Your task to perform on an android device: Open CNN.com Image 0: 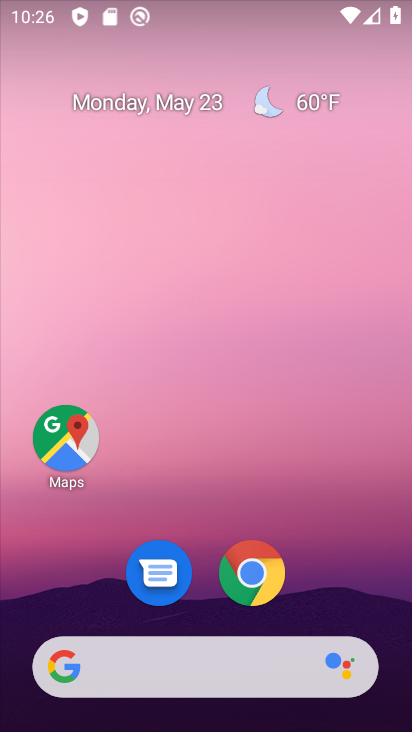
Step 0: drag from (336, 577) to (260, 52)
Your task to perform on an android device: Open CNN.com Image 1: 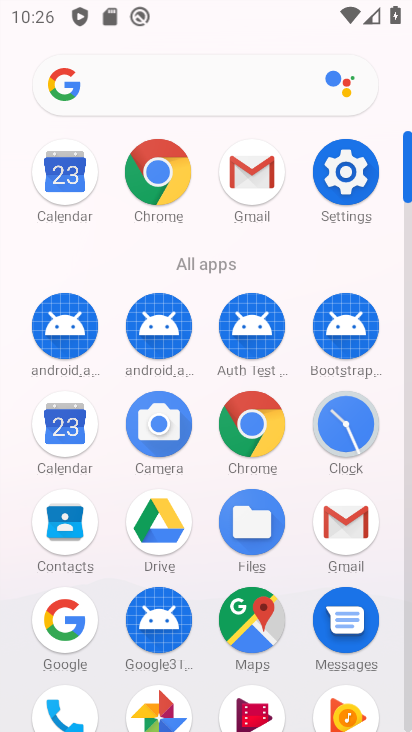
Step 1: drag from (21, 530) to (3, 181)
Your task to perform on an android device: Open CNN.com Image 2: 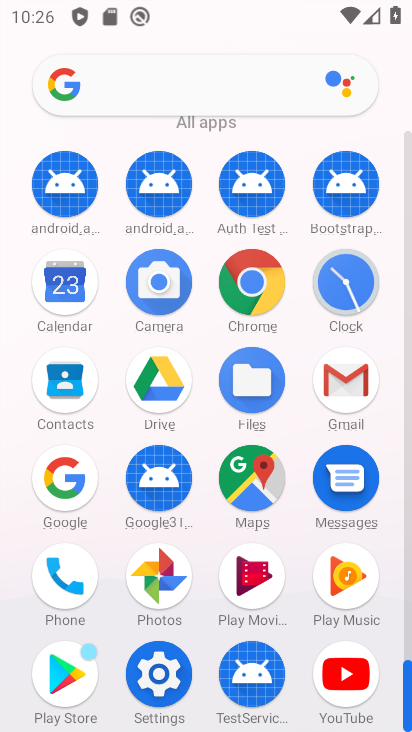
Step 2: click (243, 270)
Your task to perform on an android device: Open CNN.com Image 3: 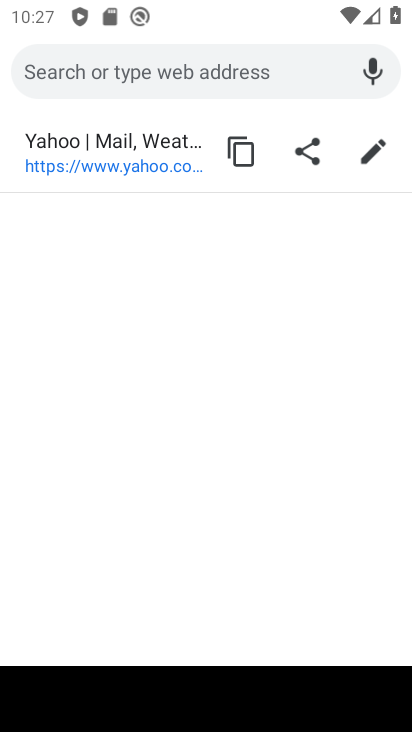
Step 3: type " CNN.com"
Your task to perform on an android device: Open CNN.com Image 4: 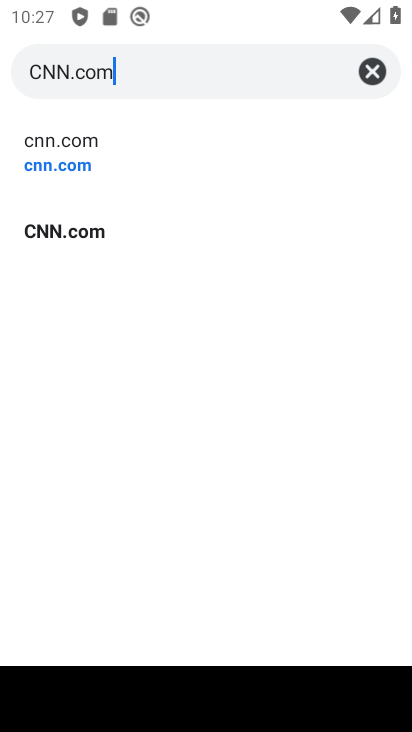
Step 4: type ""
Your task to perform on an android device: Open CNN.com Image 5: 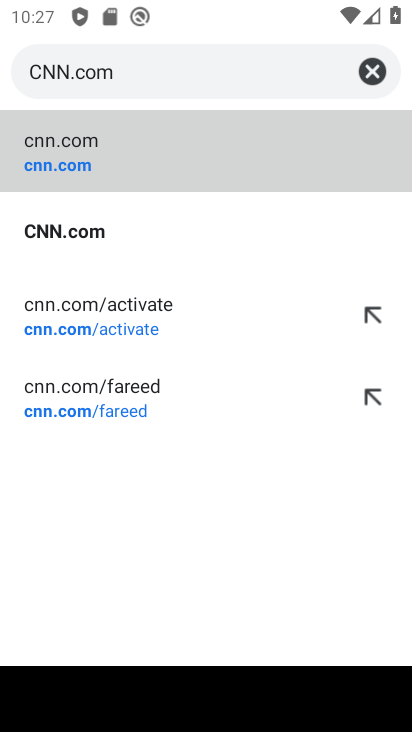
Step 5: click (105, 150)
Your task to perform on an android device: Open CNN.com Image 6: 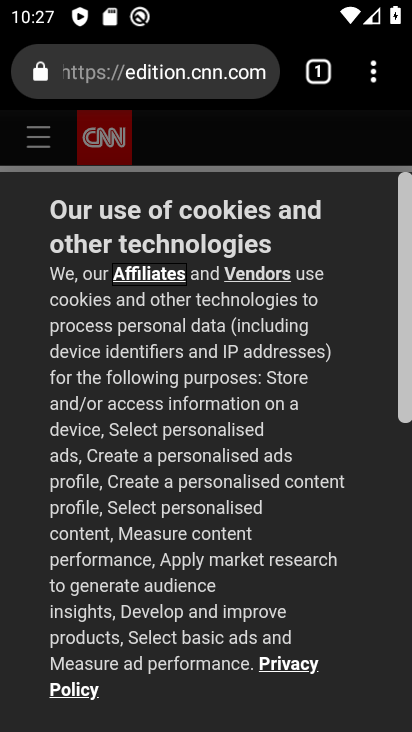
Step 6: drag from (240, 556) to (237, 224)
Your task to perform on an android device: Open CNN.com Image 7: 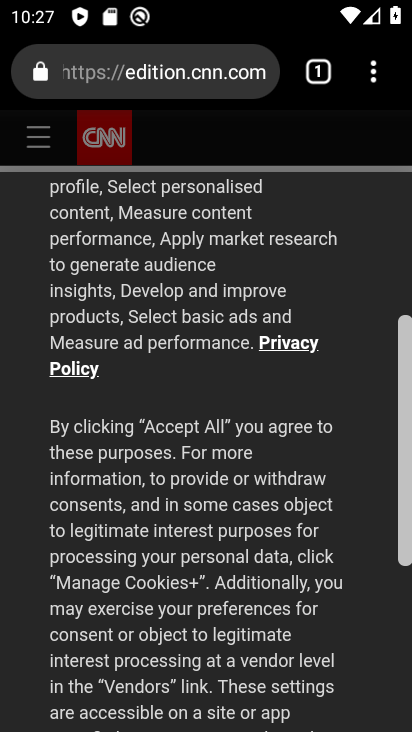
Step 7: drag from (210, 635) to (200, 218)
Your task to perform on an android device: Open CNN.com Image 8: 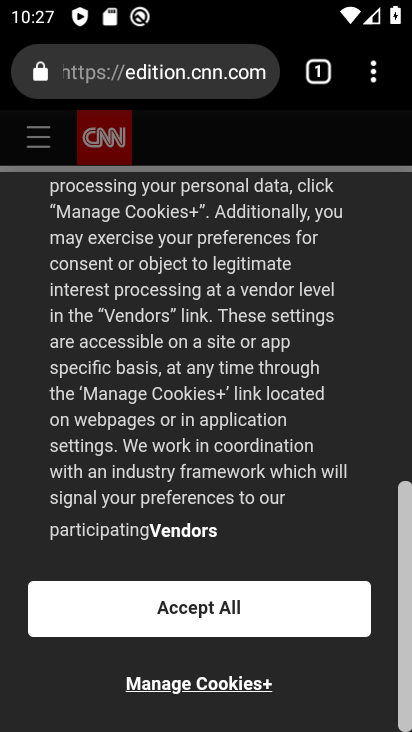
Step 8: click (198, 622)
Your task to perform on an android device: Open CNN.com Image 9: 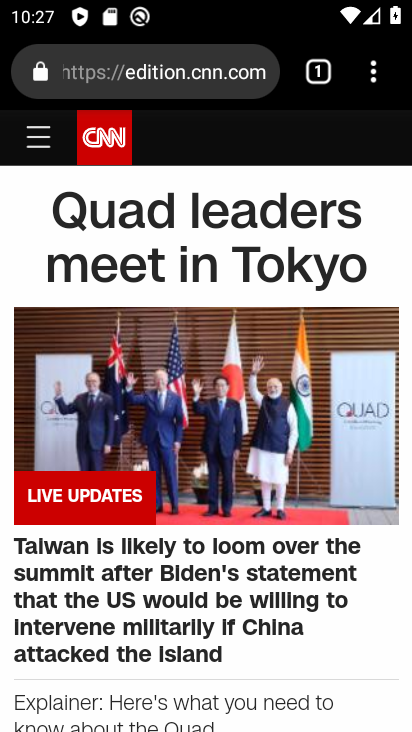
Step 9: task complete